Your task to perform on an android device: find which apps use the phone's location Image 0: 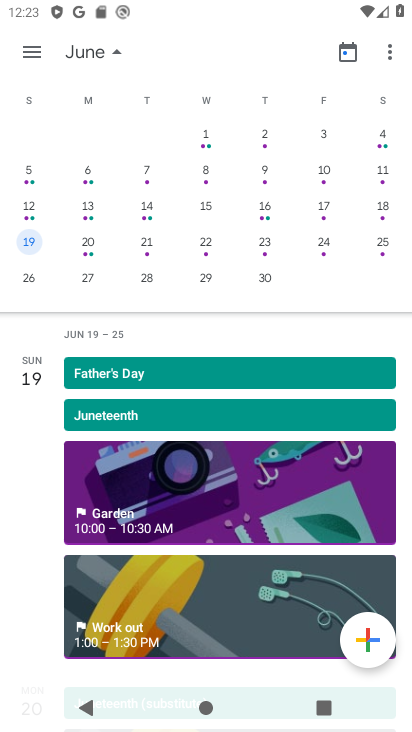
Step 0: press home button
Your task to perform on an android device: find which apps use the phone's location Image 1: 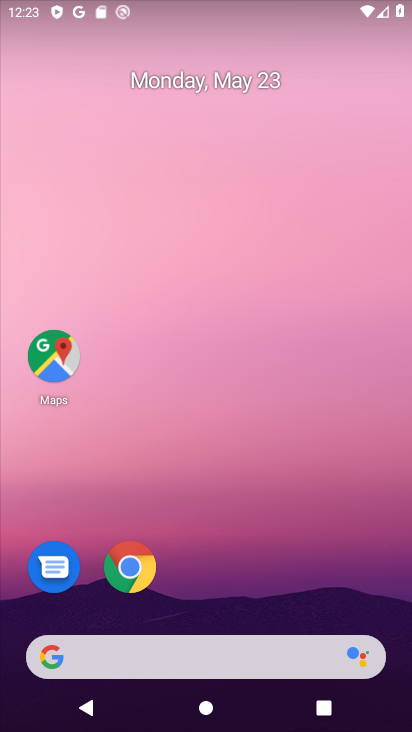
Step 1: drag from (204, 607) to (212, 213)
Your task to perform on an android device: find which apps use the phone's location Image 2: 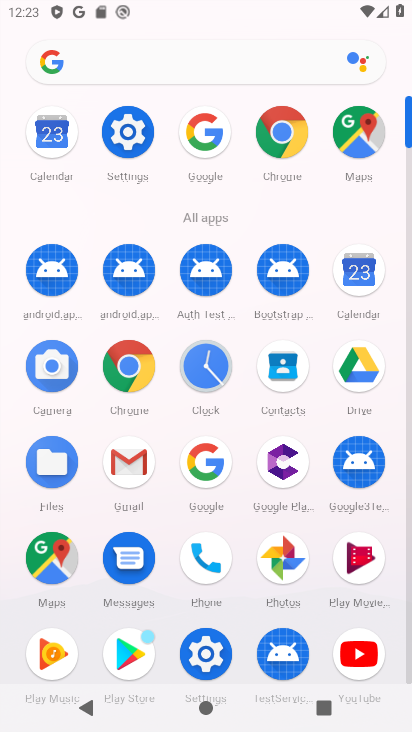
Step 2: click (120, 131)
Your task to perform on an android device: find which apps use the phone's location Image 3: 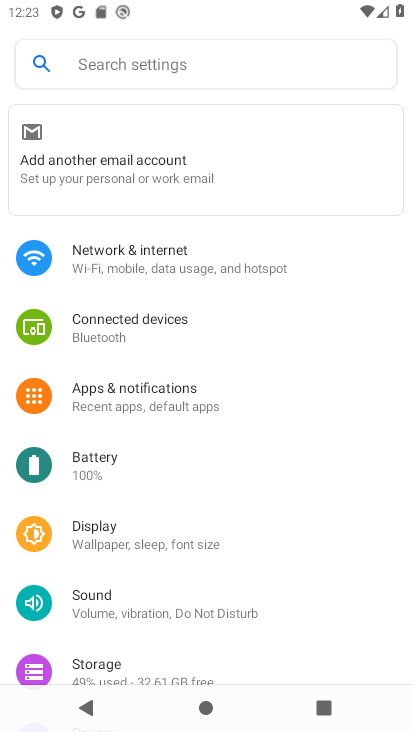
Step 3: drag from (170, 627) to (197, 302)
Your task to perform on an android device: find which apps use the phone's location Image 4: 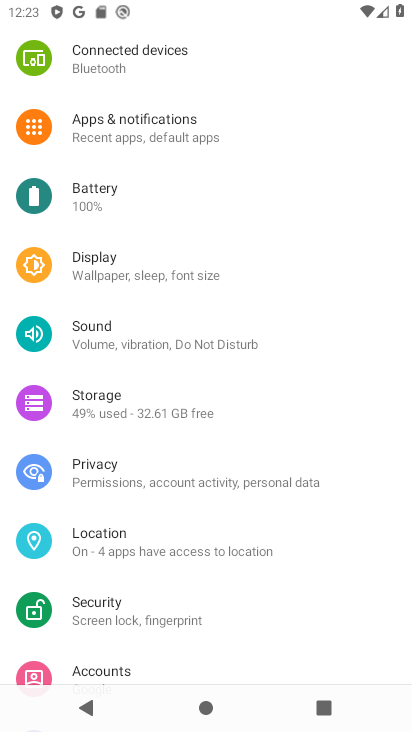
Step 4: click (122, 531)
Your task to perform on an android device: find which apps use the phone's location Image 5: 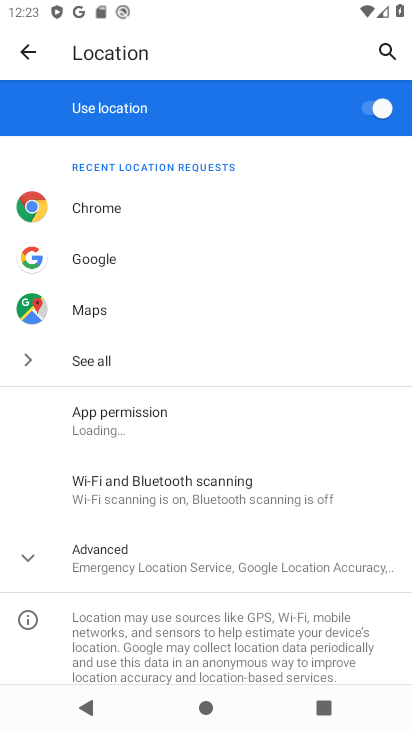
Step 5: click (129, 430)
Your task to perform on an android device: find which apps use the phone's location Image 6: 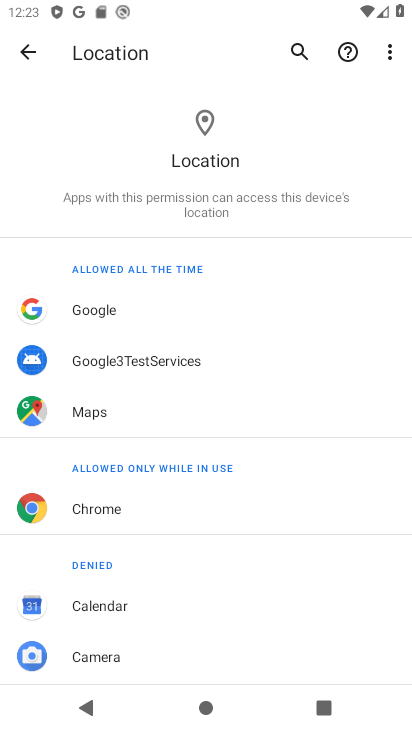
Step 6: task complete